Your task to perform on an android device: turn on javascript in the chrome app Image 0: 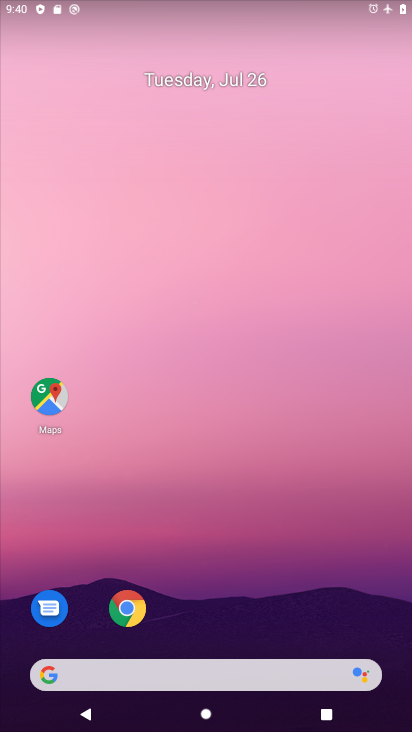
Step 0: click (131, 607)
Your task to perform on an android device: turn on javascript in the chrome app Image 1: 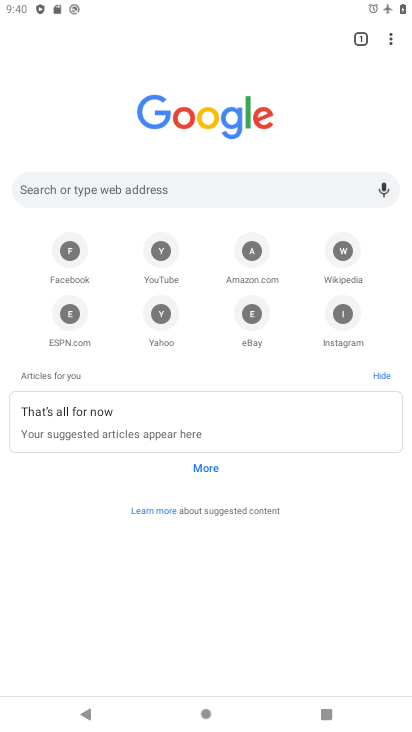
Step 1: click (388, 44)
Your task to perform on an android device: turn on javascript in the chrome app Image 2: 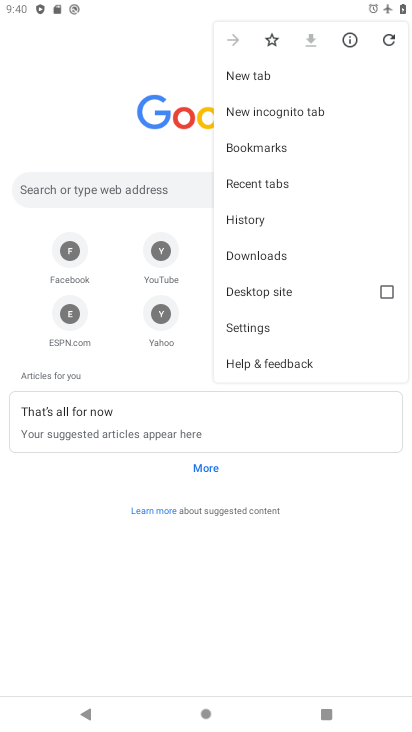
Step 2: click (246, 326)
Your task to perform on an android device: turn on javascript in the chrome app Image 3: 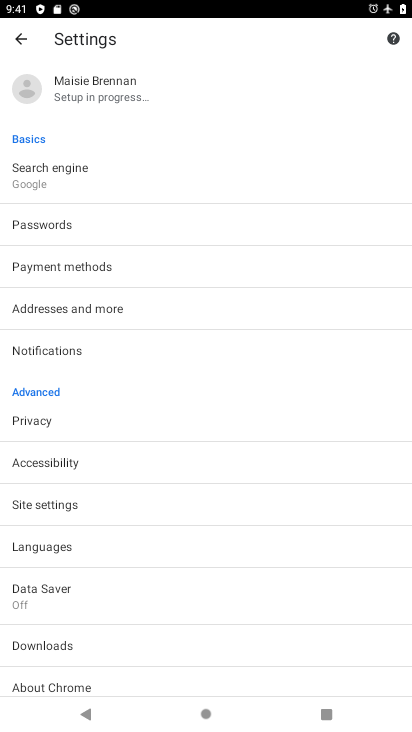
Step 3: click (42, 502)
Your task to perform on an android device: turn on javascript in the chrome app Image 4: 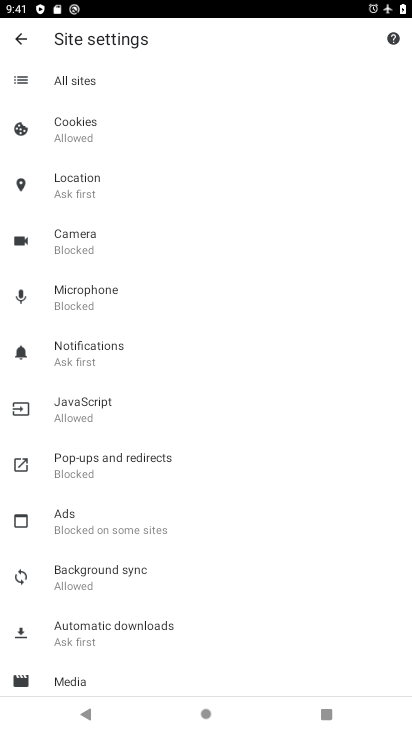
Step 4: click (90, 408)
Your task to perform on an android device: turn on javascript in the chrome app Image 5: 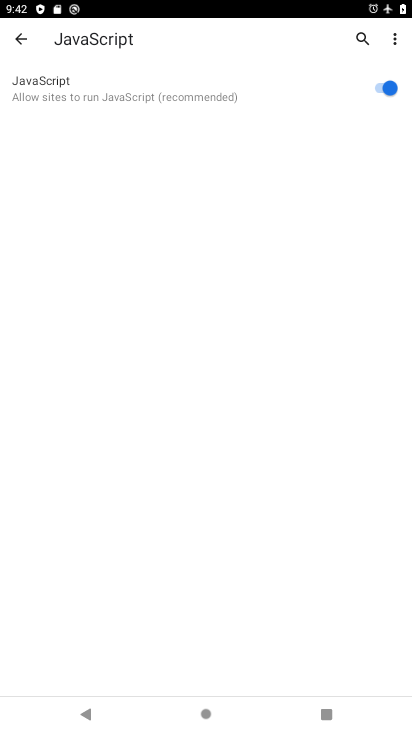
Step 5: task complete